Your task to perform on an android device: empty trash in the gmail app Image 0: 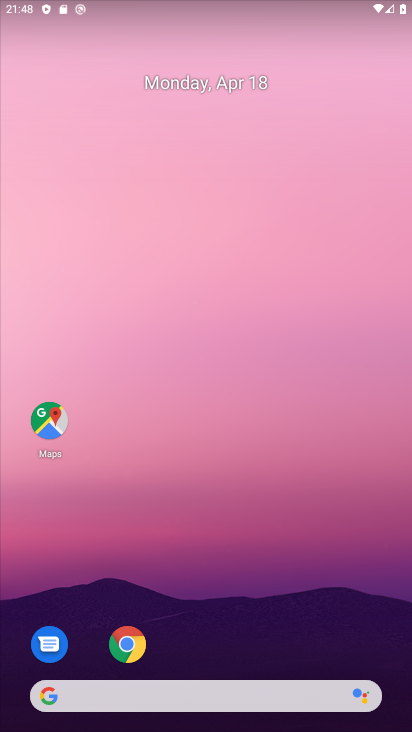
Step 0: drag from (213, 632) to (408, 300)
Your task to perform on an android device: empty trash in the gmail app Image 1: 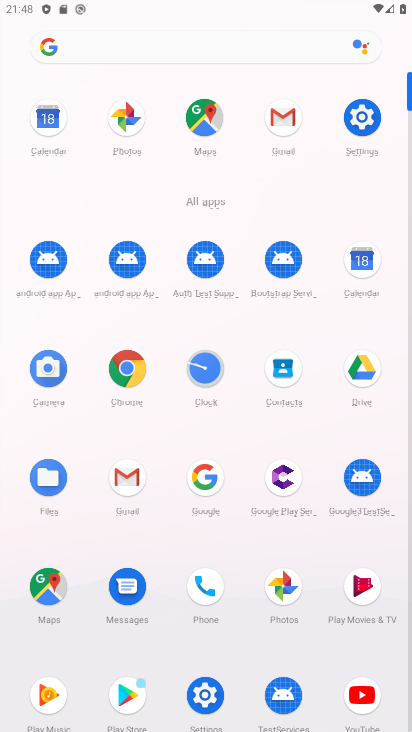
Step 1: click (128, 479)
Your task to perform on an android device: empty trash in the gmail app Image 2: 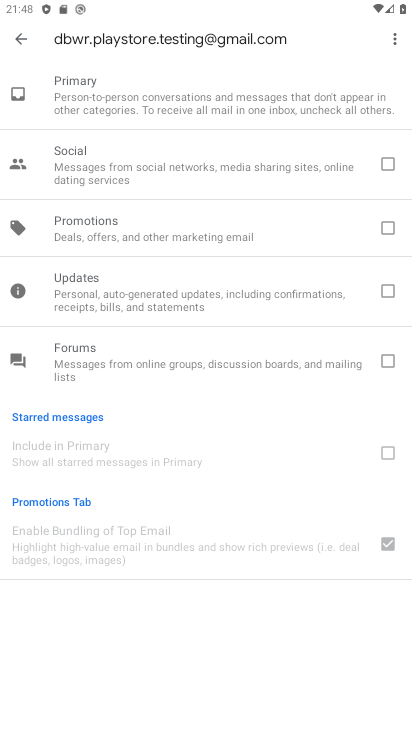
Step 2: click (30, 43)
Your task to perform on an android device: empty trash in the gmail app Image 3: 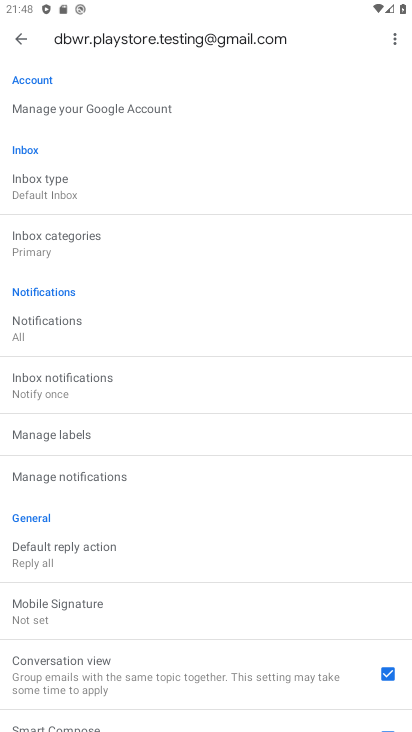
Step 3: click (23, 37)
Your task to perform on an android device: empty trash in the gmail app Image 4: 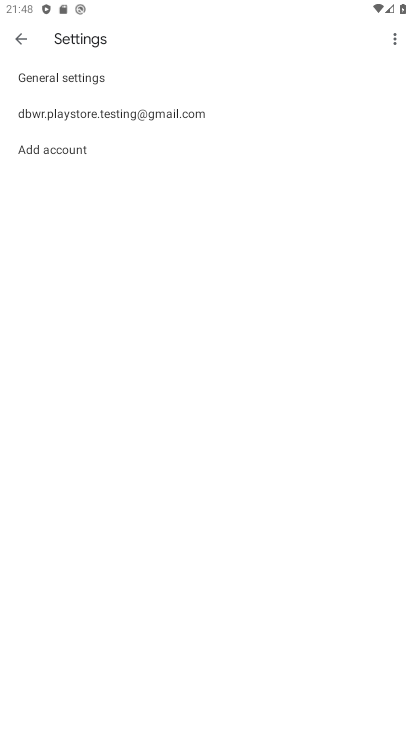
Step 4: click (20, 43)
Your task to perform on an android device: empty trash in the gmail app Image 5: 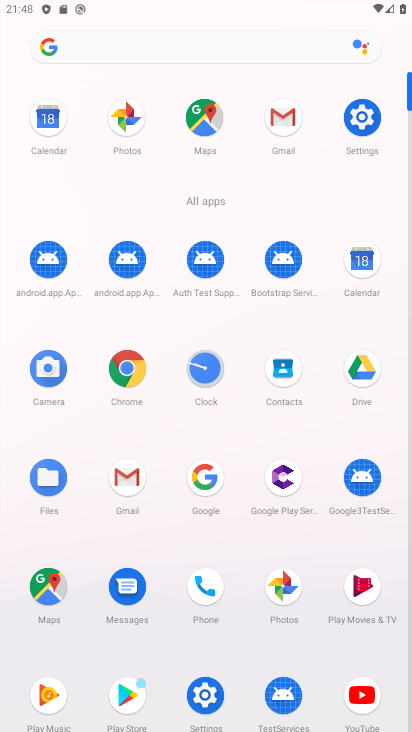
Step 5: click (134, 477)
Your task to perform on an android device: empty trash in the gmail app Image 6: 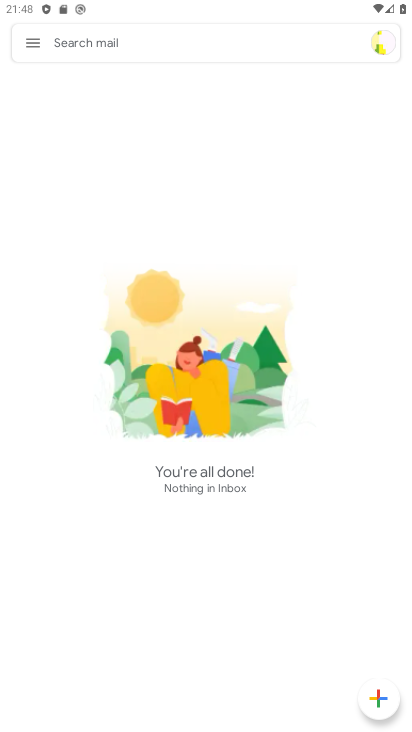
Step 6: click (31, 35)
Your task to perform on an android device: empty trash in the gmail app Image 7: 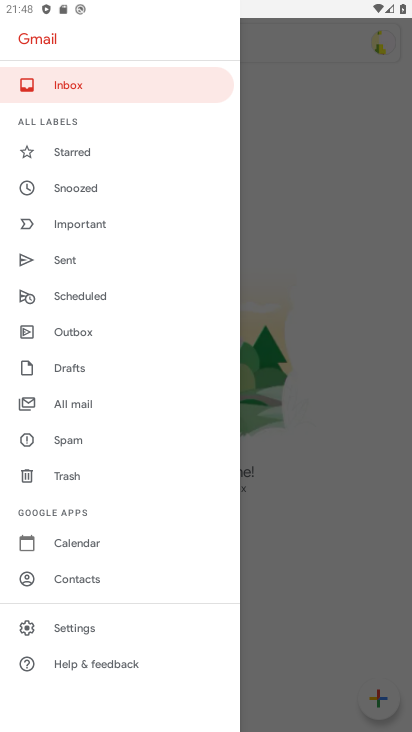
Step 7: click (59, 472)
Your task to perform on an android device: empty trash in the gmail app Image 8: 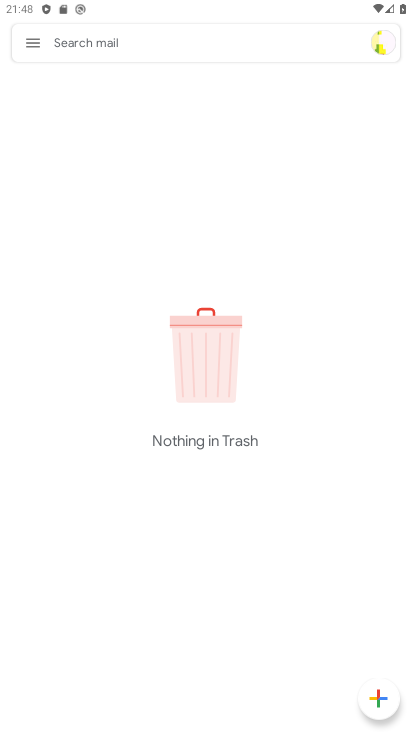
Step 8: task complete